Your task to perform on an android device: Open settings Image 0: 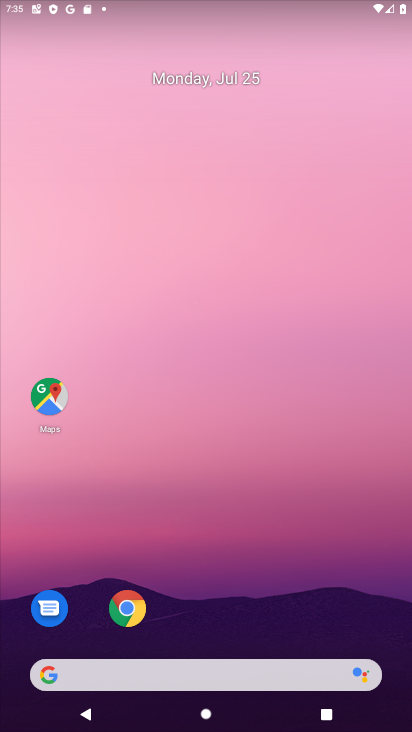
Step 0: drag from (238, 646) to (295, 119)
Your task to perform on an android device: Open settings Image 1: 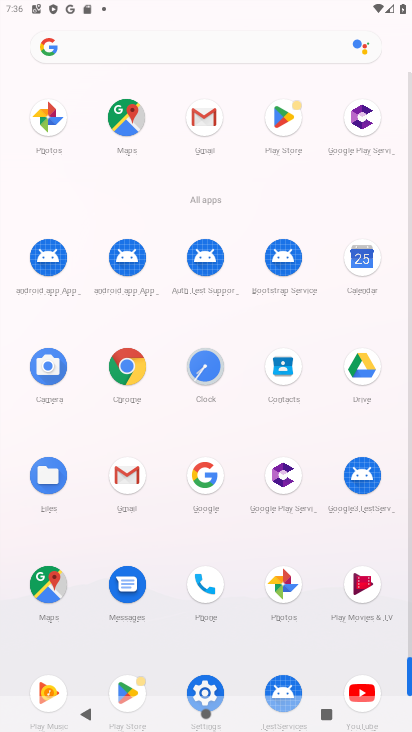
Step 1: drag from (204, 515) to (288, 178)
Your task to perform on an android device: Open settings Image 2: 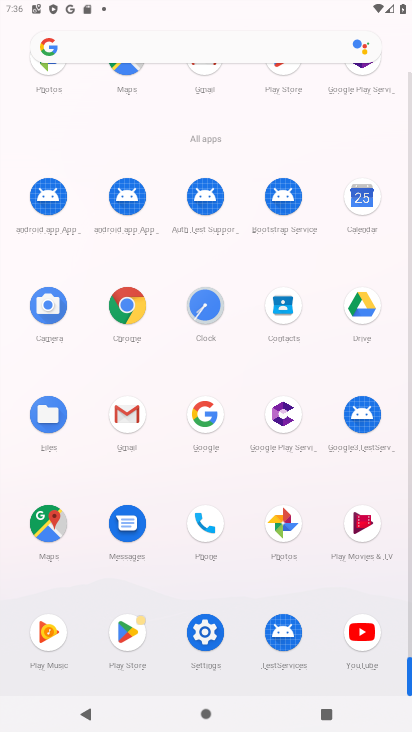
Step 2: click (207, 647)
Your task to perform on an android device: Open settings Image 3: 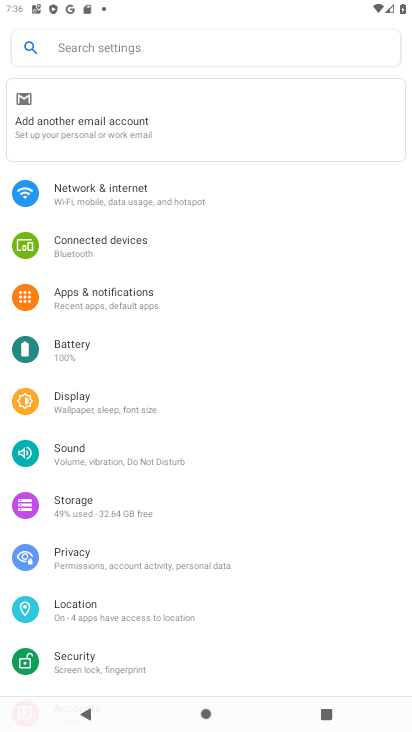
Step 3: task complete